Your task to perform on an android device: toggle priority inbox in the gmail app Image 0: 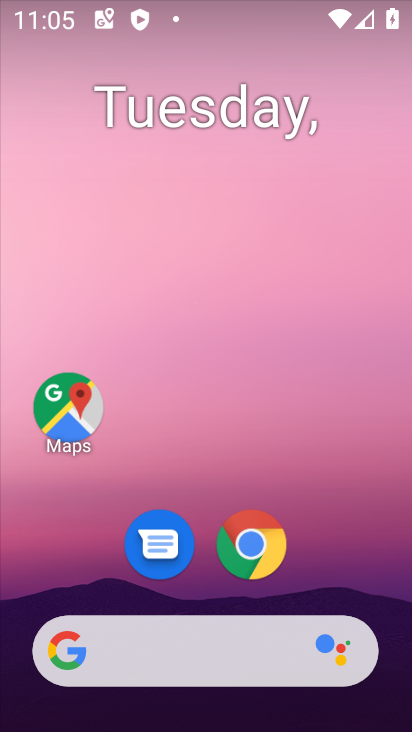
Step 0: drag from (390, 636) to (6, 30)
Your task to perform on an android device: toggle priority inbox in the gmail app Image 1: 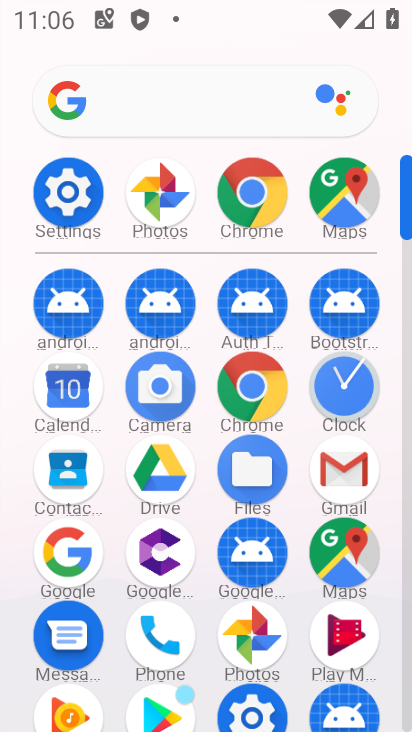
Step 1: click (372, 478)
Your task to perform on an android device: toggle priority inbox in the gmail app Image 2: 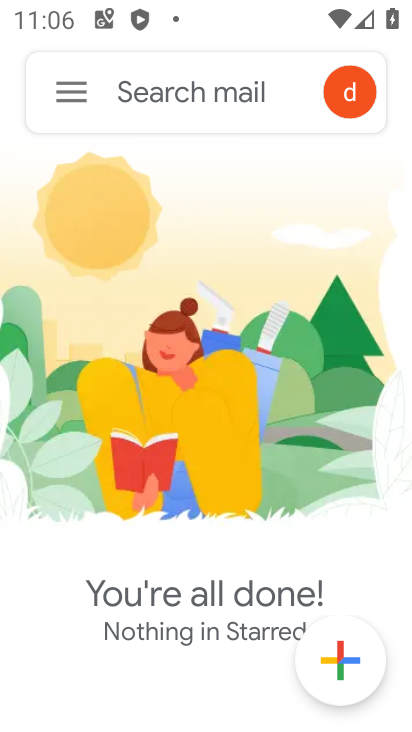
Step 2: click (59, 94)
Your task to perform on an android device: toggle priority inbox in the gmail app Image 3: 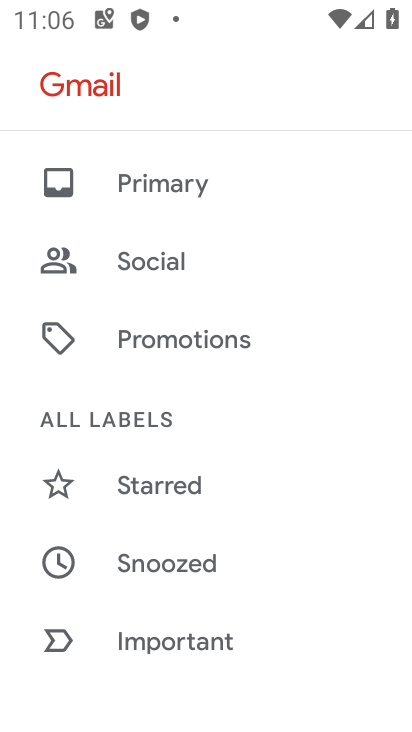
Step 3: drag from (204, 625) to (218, 133)
Your task to perform on an android device: toggle priority inbox in the gmail app Image 4: 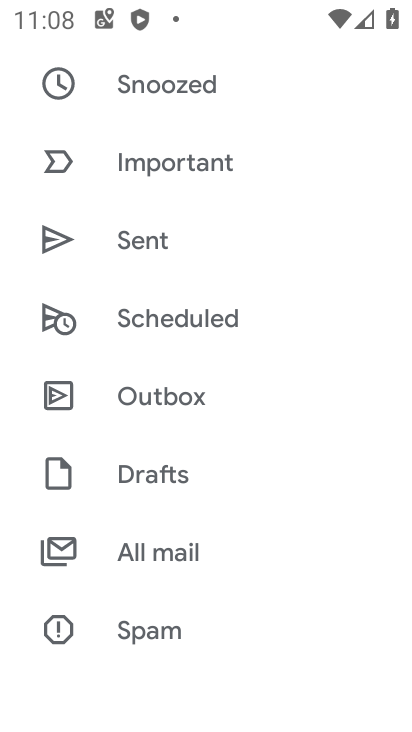
Step 4: press back button
Your task to perform on an android device: toggle priority inbox in the gmail app Image 5: 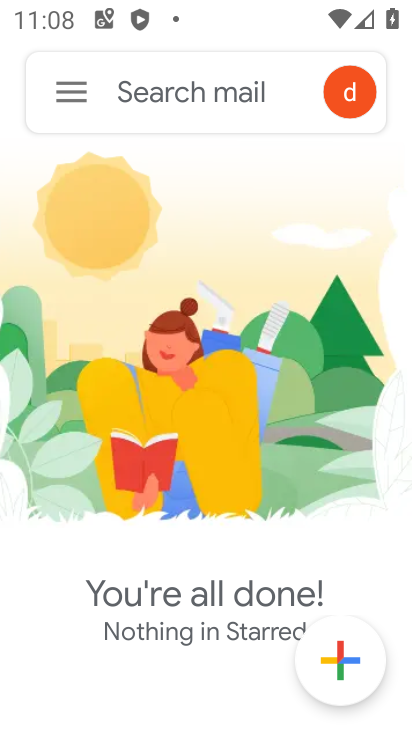
Step 5: click (50, 82)
Your task to perform on an android device: toggle priority inbox in the gmail app Image 6: 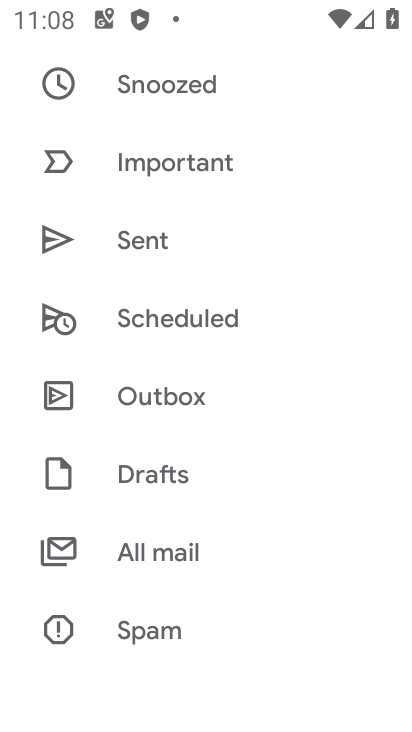
Step 6: drag from (182, 535) to (296, 46)
Your task to perform on an android device: toggle priority inbox in the gmail app Image 7: 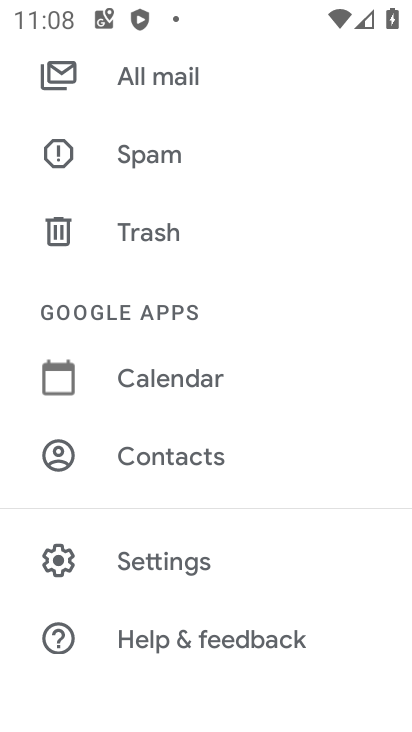
Step 7: click (166, 562)
Your task to perform on an android device: toggle priority inbox in the gmail app Image 8: 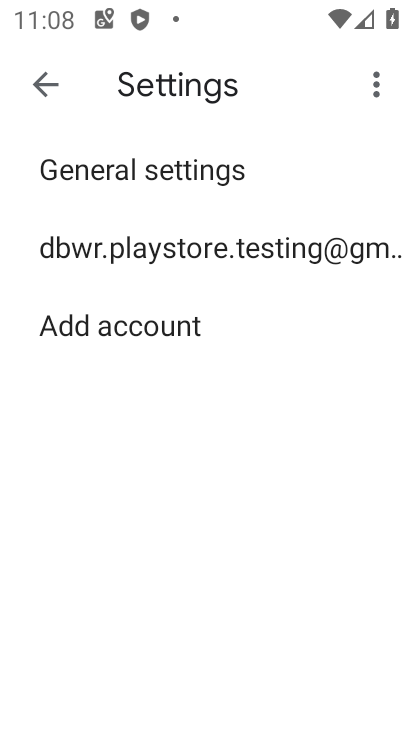
Step 8: click (120, 244)
Your task to perform on an android device: toggle priority inbox in the gmail app Image 9: 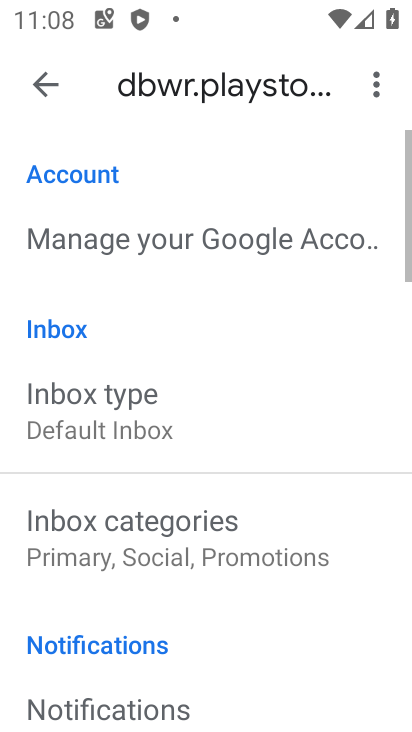
Step 9: click (145, 413)
Your task to perform on an android device: toggle priority inbox in the gmail app Image 10: 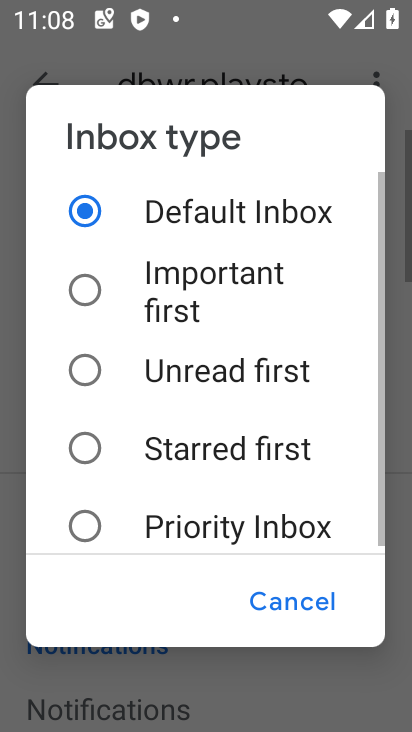
Step 10: click (177, 358)
Your task to perform on an android device: toggle priority inbox in the gmail app Image 11: 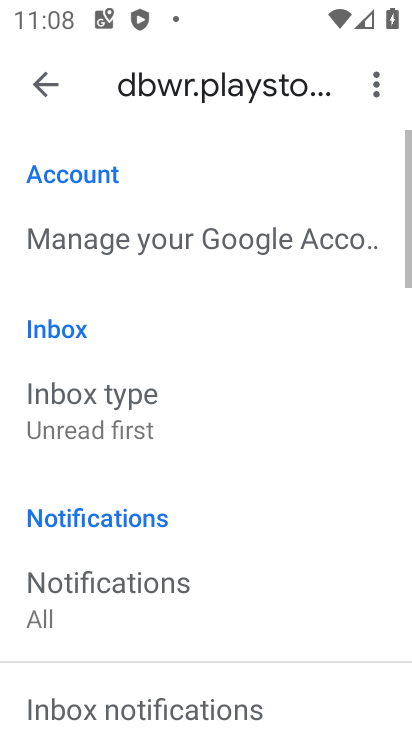
Step 11: task complete